Your task to perform on an android device: visit the assistant section in the google photos Image 0: 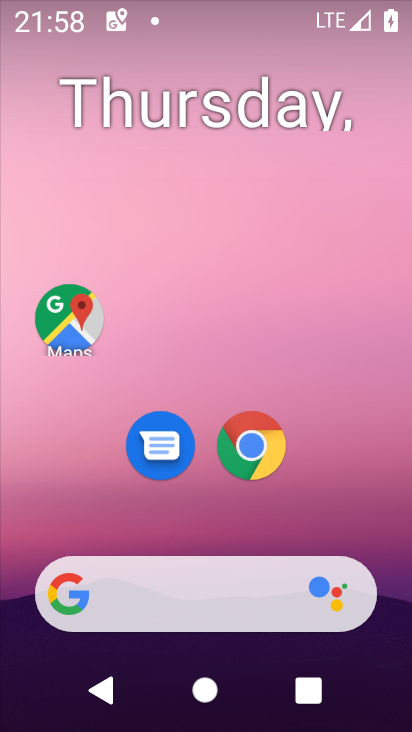
Step 0: drag from (243, 538) to (214, 195)
Your task to perform on an android device: visit the assistant section in the google photos Image 1: 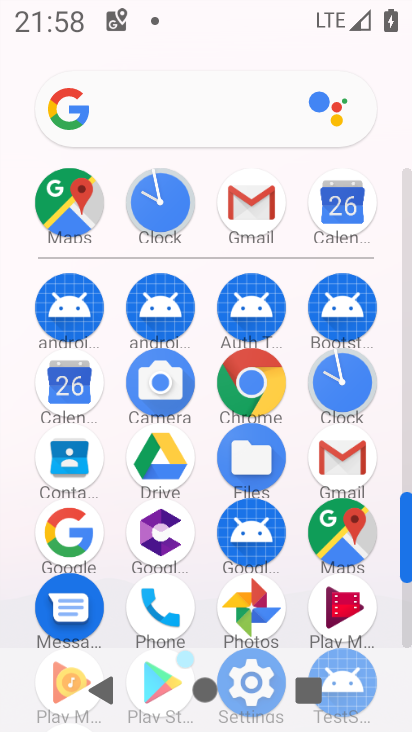
Step 1: drag from (281, 256) to (271, 76)
Your task to perform on an android device: visit the assistant section in the google photos Image 2: 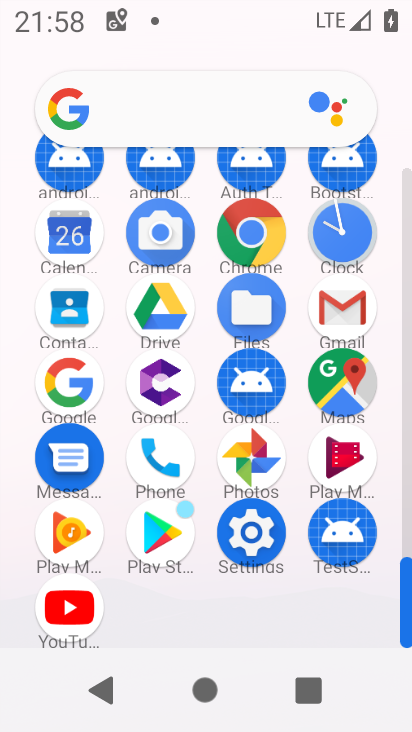
Step 2: click (254, 459)
Your task to perform on an android device: visit the assistant section in the google photos Image 3: 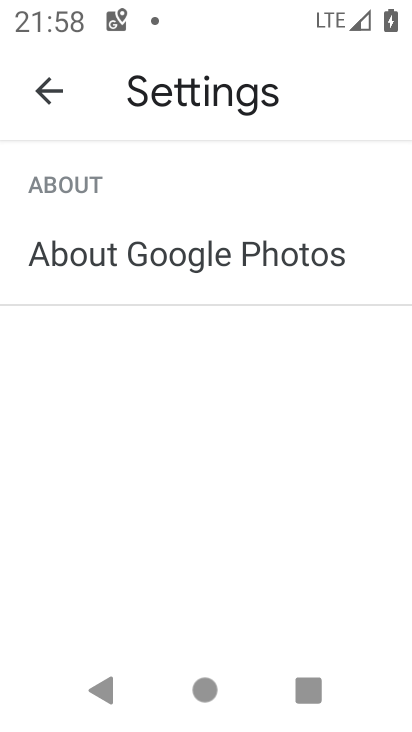
Step 3: press back button
Your task to perform on an android device: visit the assistant section in the google photos Image 4: 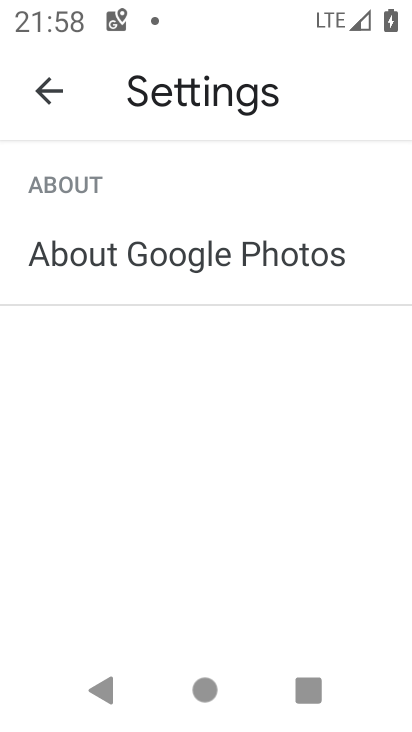
Step 4: press back button
Your task to perform on an android device: visit the assistant section in the google photos Image 5: 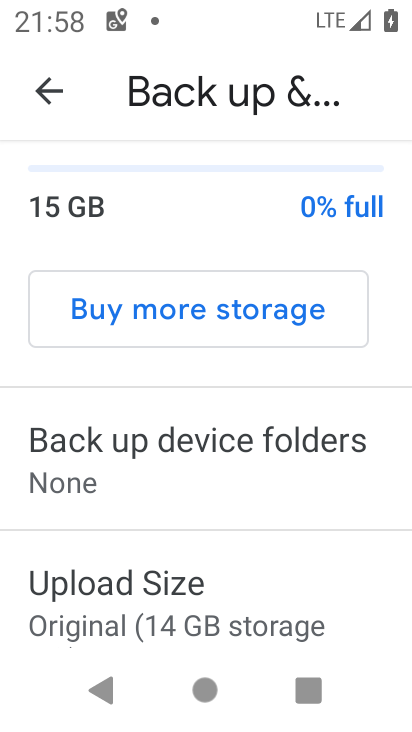
Step 5: press back button
Your task to perform on an android device: visit the assistant section in the google photos Image 6: 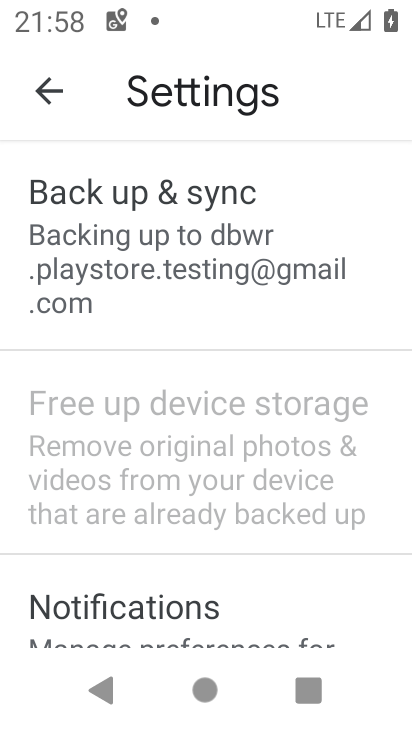
Step 6: press back button
Your task to perform on an android device: visit the assistant section in the google photos Image 7: 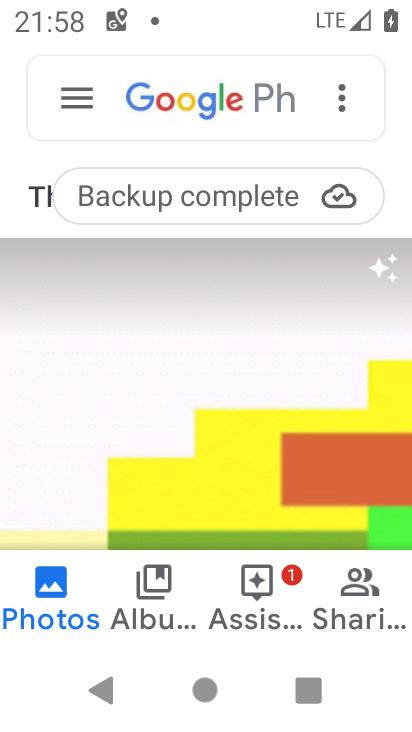
Step 7: click (240, 585)
Your task to perform on an android device: visit the assistant section in the google photos Image 8: 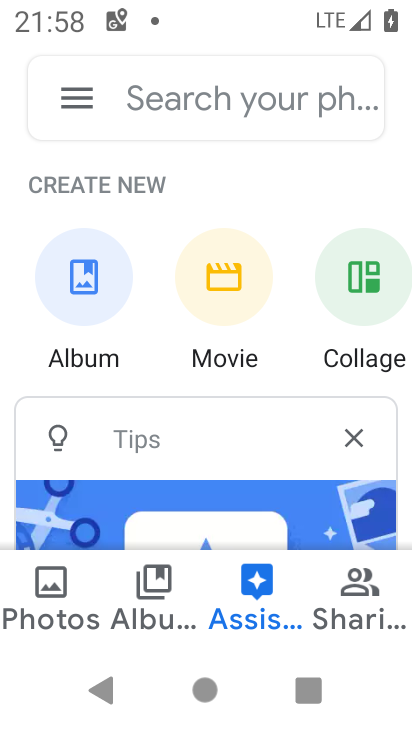
Step 8: drag from (257, 484) to (269, 216)
Your task to perform on an android device: visit the assistant section in the google photos Image 9: 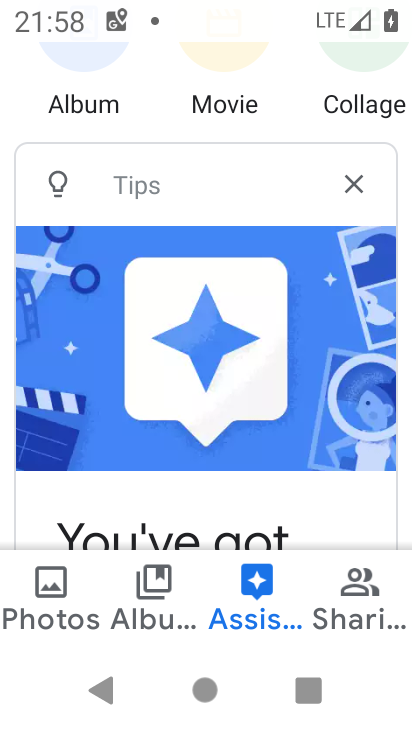
Step 9: drag from (196, 520) to (253, 114)
Your task to perform on an android device: visit the assistant section in the google photos Image 10: 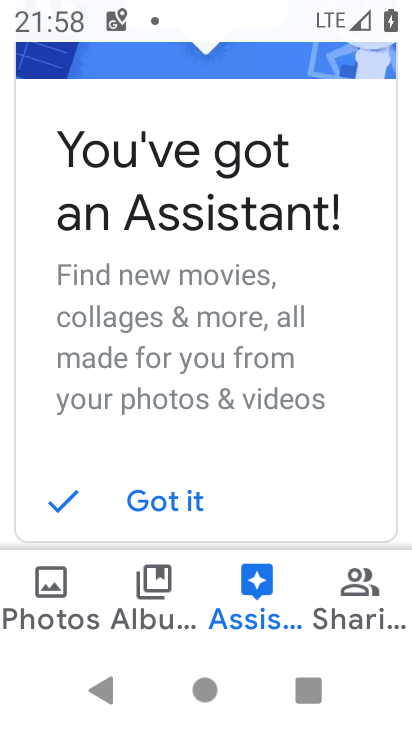
Step 10: click (183, 501)
Your task to perform on an android device: visit the assistant section in the google photos Image 11: 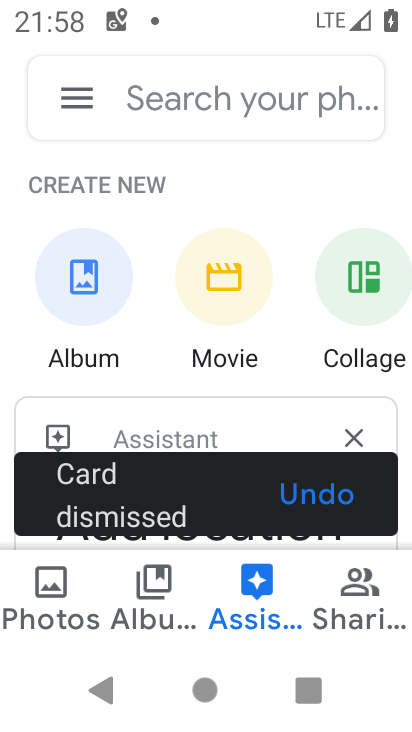
Step 11: task complete